Your task to perform on an android device: Open the web browser Image 0: 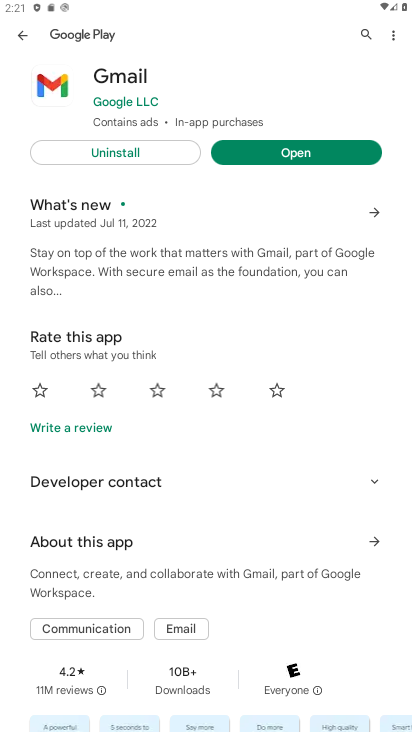
Step 0: task complete